Your task to perform on an android device: Open Google Chrome and open the bookmarks view Image 0: 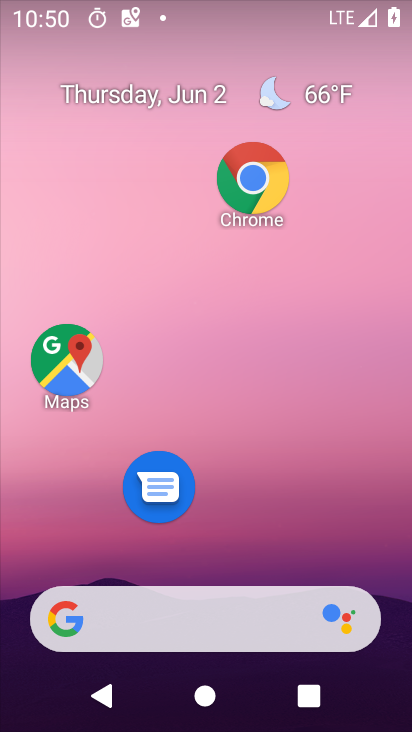
Step 0: drag from (228, 725) to (228, 17)
Your task to perform on an android device: Open Google Chrome and open the bookmarks view Image 1: 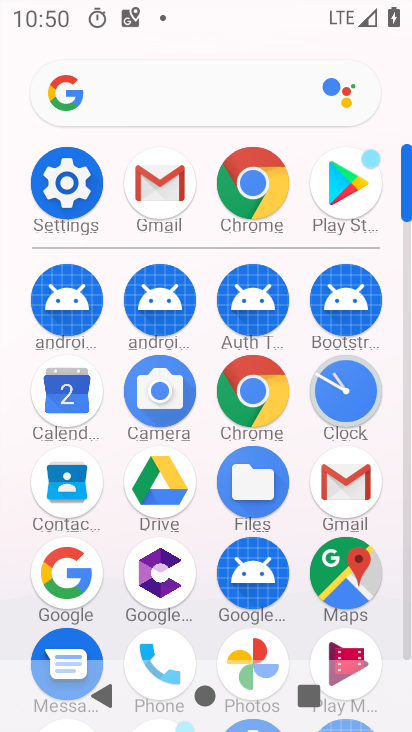
Step 1: click (256, 399)
Your task to perform on an android device: Open Google Chrome and open the bookmarks view Image 2: 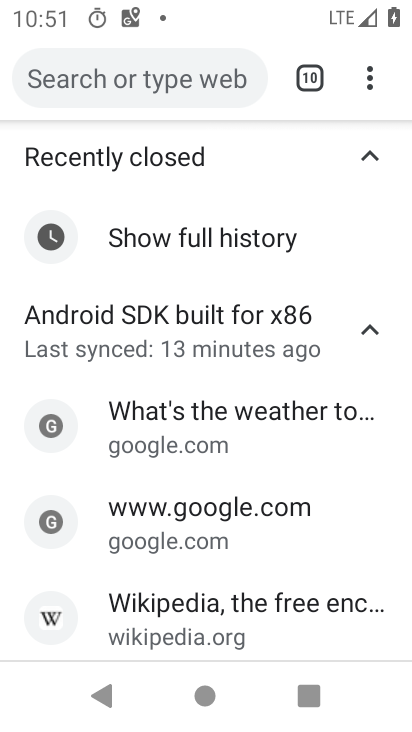
Step 2: click (370, 88)
Your task to perform on an android device: Open Google Chrome and open the bookmarks view Image 3: 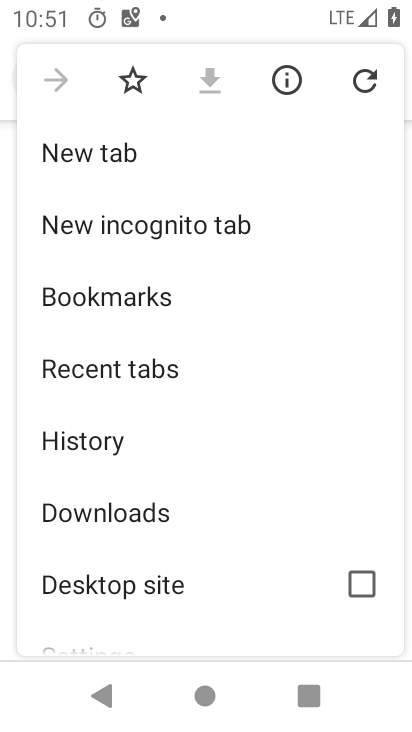
Step 3: click (116, 299)
Your task to perform on an android device: Open Google Chrome and open the bookmarks view Image 4: 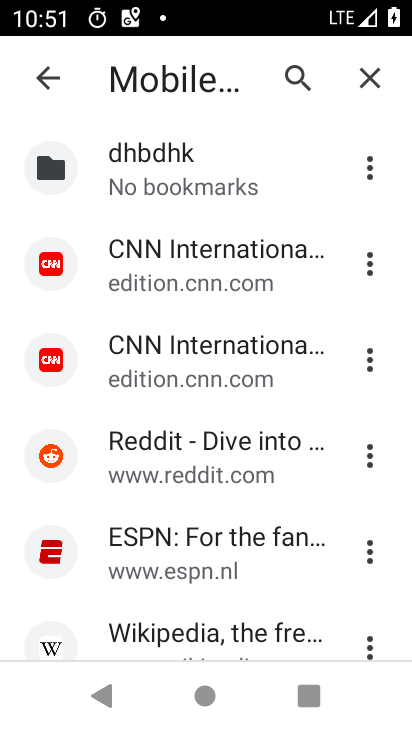
Step 4: task complete